Your task to perform on an android device: Open the web browser Image 0: 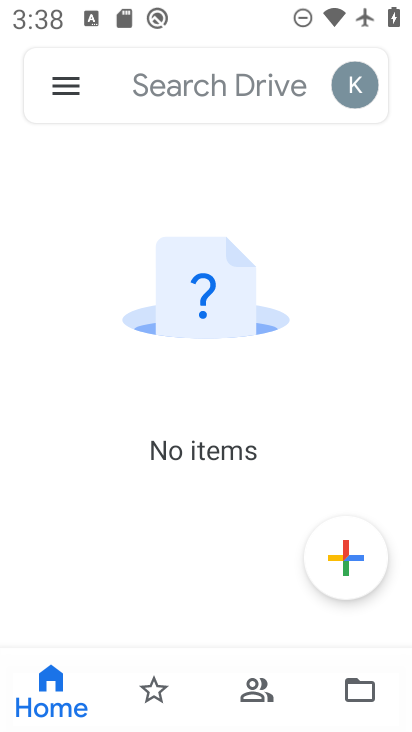
Step 0: press home button
Your task to perform on an android device: Open the web browser Image 1: 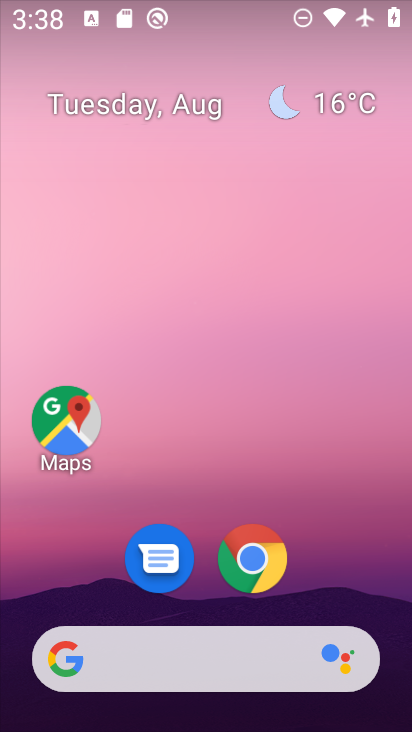
Step 1: click (245, 533)
Your task to perform on an android device: Open the web browser Image 2: 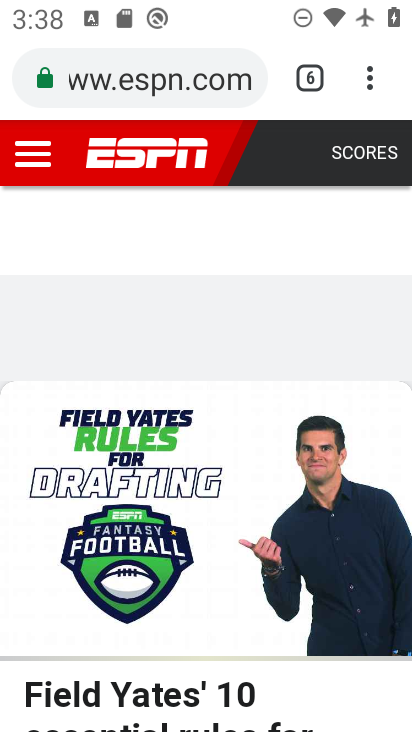
Step 2: task complete